Your task to perform on an android device: turn smart compose on in the gmail app Image 0: 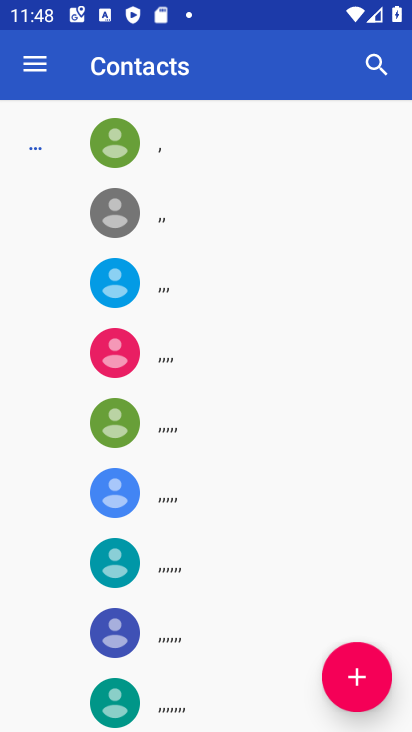
Step 0: press home button
Your task to perform on an android device: turn smart compose on in the gmail app Image 1: 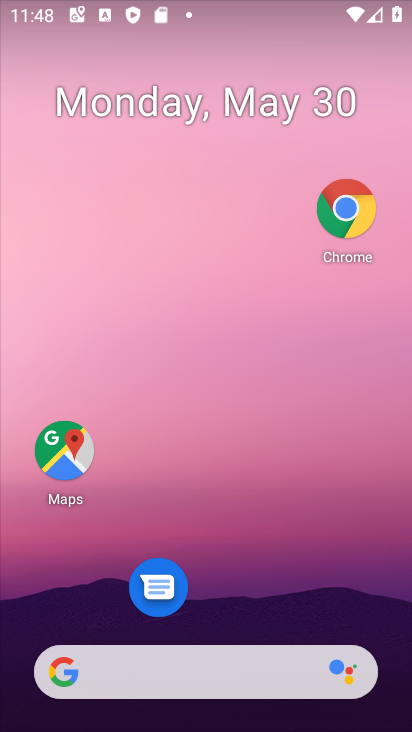
Step 1: drag from (212, 584) to (254, 68)
Your task to perform on an android device: turn smart compose on in the gmail app Image 2: 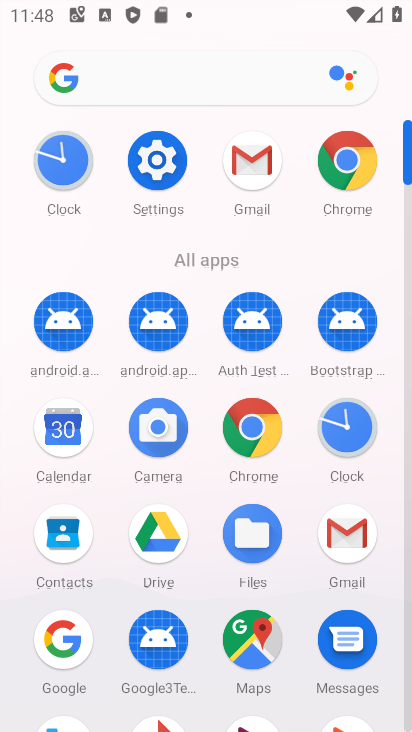
Step 2: click (254, 140)
Your task to perform on an android device: turn smart compose on in the gmail app Image 3: 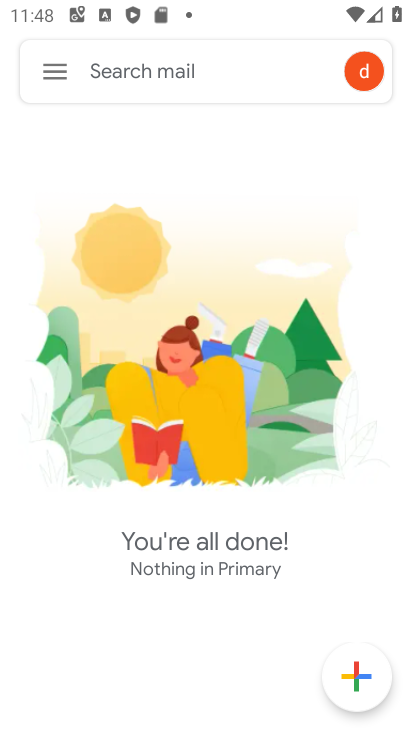
Step 3: click (41, 84)
Your task to perform on an android device: turn smart compose on in the gmail app Image 4: 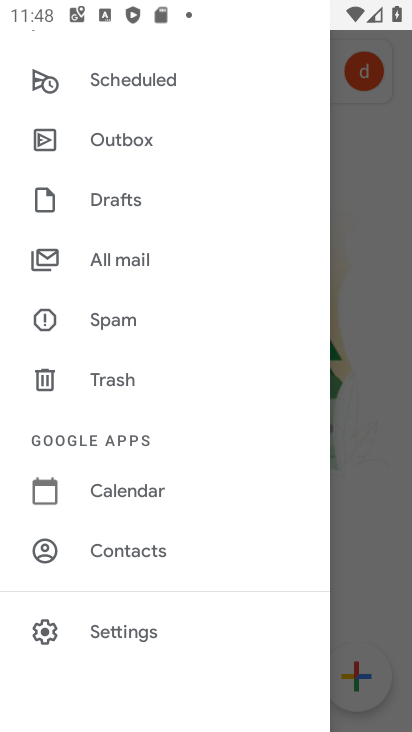
Step 4: click (76, 621)
Your task to perform on an android device: turn smart compose on in the gmail app Image 5: 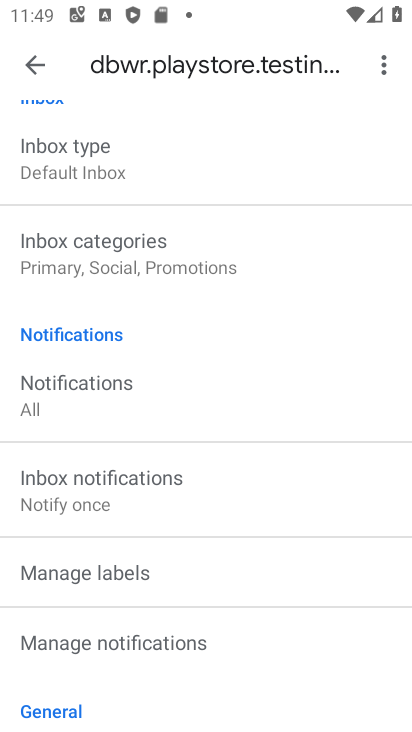
Step 5: task complete